Your task to perform on an android device: Open Google Chrome and click the shortcut for Amazon.com Image 0: 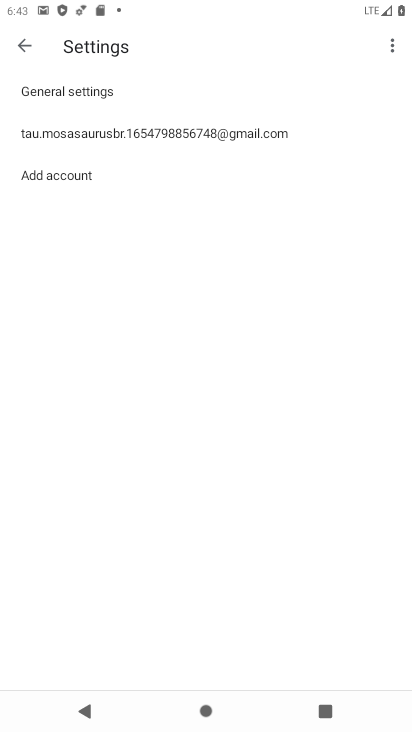
Step 0: press home button
Your task to perform on an android device: Open Google Chrome and click the shortcut for Amazon.com Image 1: 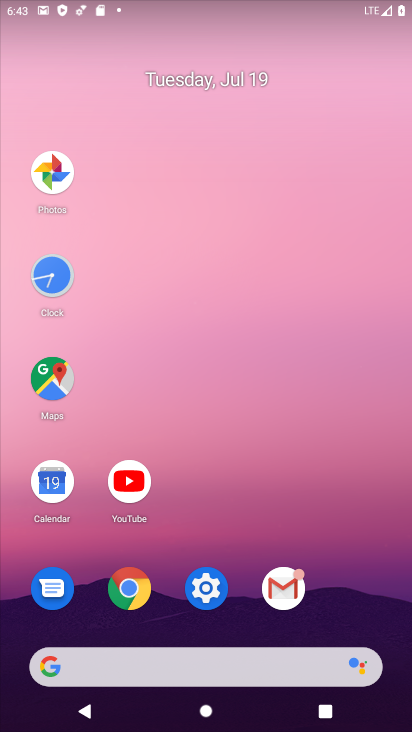
Step 1: click (133, 586)
Your task to perform on an android device: Open Google Chrome and click the shortcut for Amazon.com Image 2: 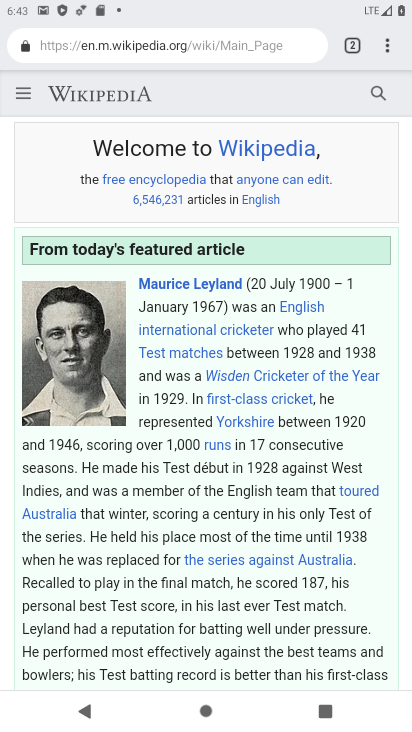
Step 2: click (390, 44)
Your task to perform on an android device: Open Google Chrome and click the shortcut for Amazon.com Image 3: 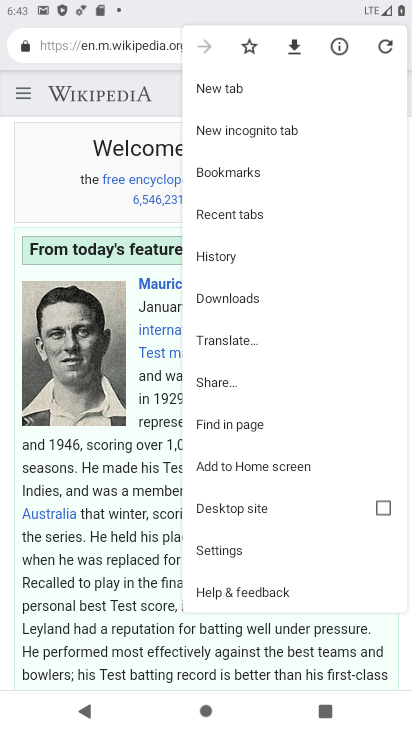
Step 3: click (227, 82)
Your task to perform on an android device: Open Google Chrome and click the shortcut for Amazon.com Image 4: 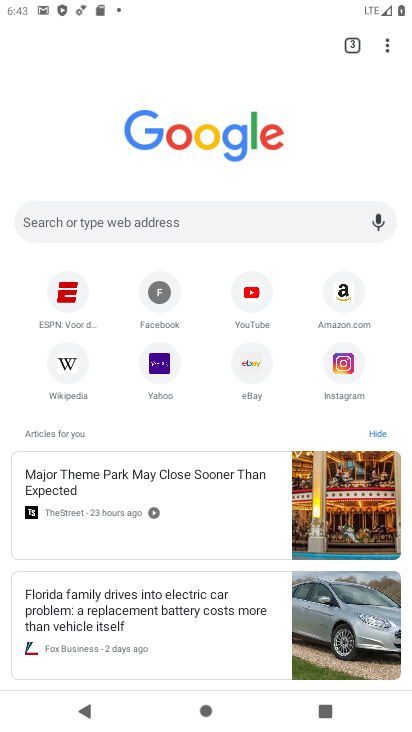
Step 4: click (340, 294)
Your task to perform on an android device: Open Google Chrome and click the shortcut for Amazon.com Image 5: 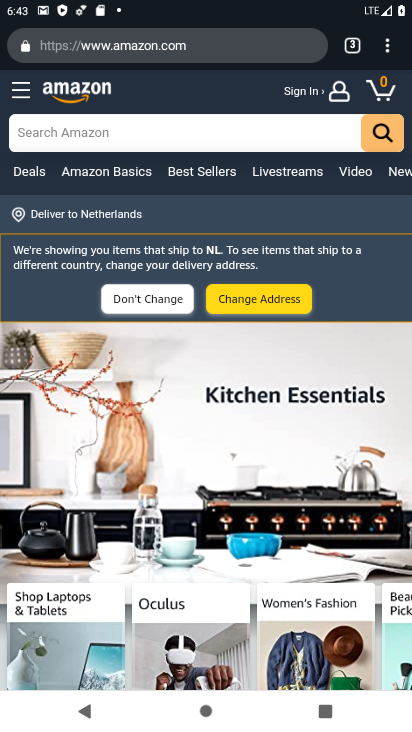
Step 5: task complete